Your task to perform on an android device: Open Google Maps Image 0: 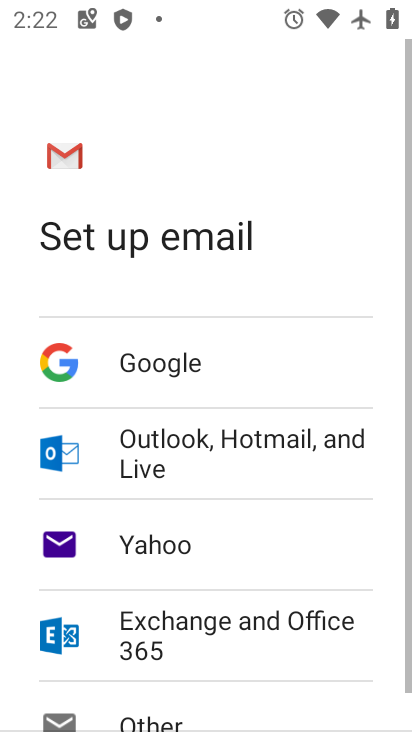
Step 0: press home button
Your task to perform on an android device: Open Google Maps Image 1: 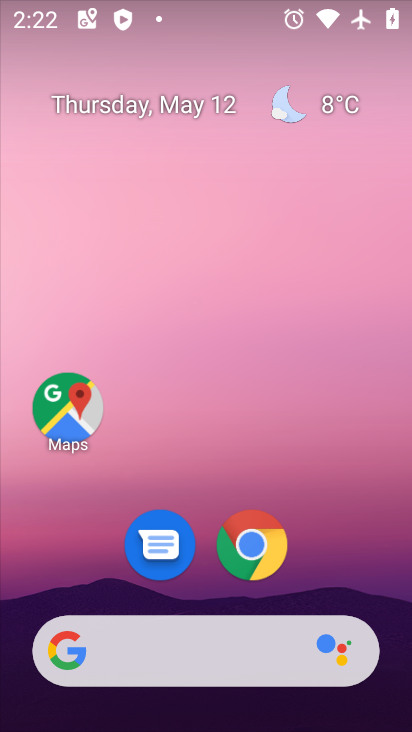
Step 1: click (68, 408)
Your task to perform on an android device: Open Google Maps Image 2: 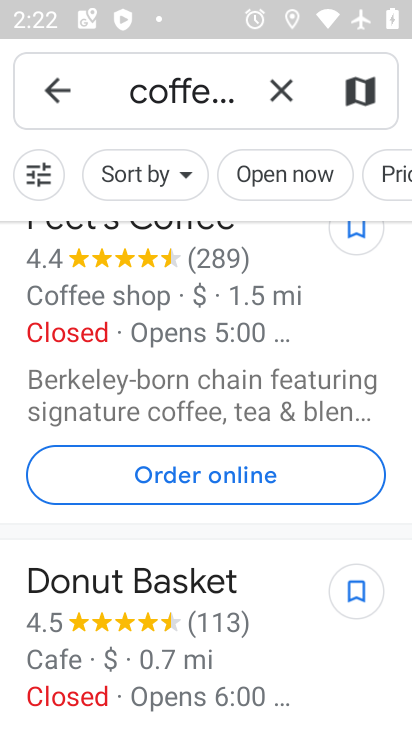
Step 2: click (278, 84)
Your task to perform on an android device: Open Google Maps Image 3: 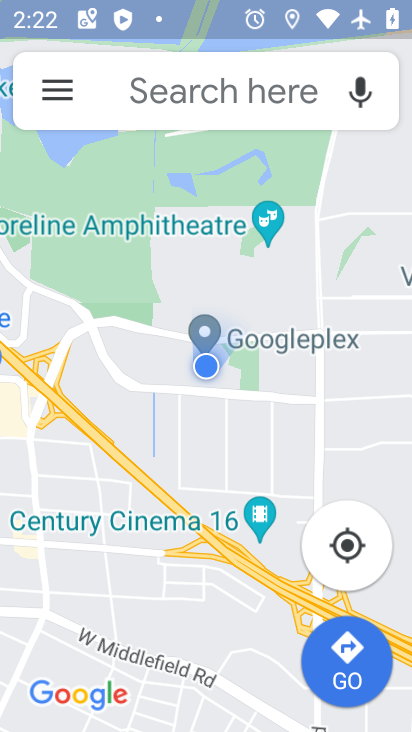
Step 3: task complete